Your task to perform on an android device: turn on improve location accuracy Image 0: 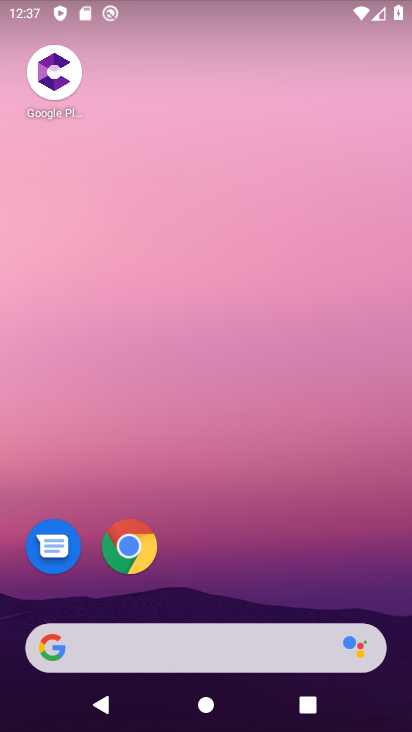
Step 0: drag from (266, 461) to (268, 56)
Your task to perform on an android device: turn on improve location accuracy Image 1: 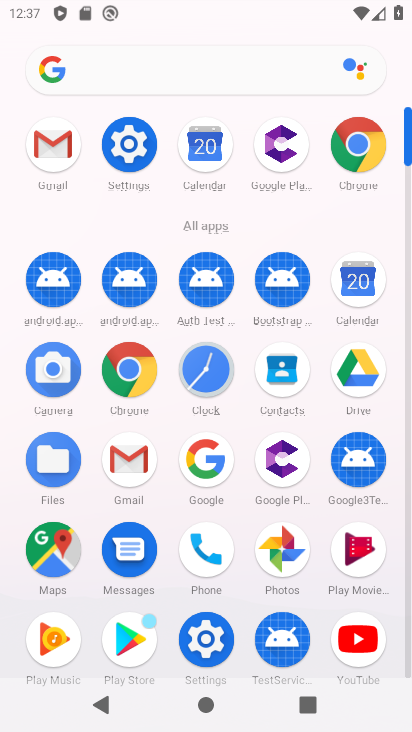
Step 1: click (139, 146)
Your task to perform on an android device: turn on improve location accuracy Image 2: 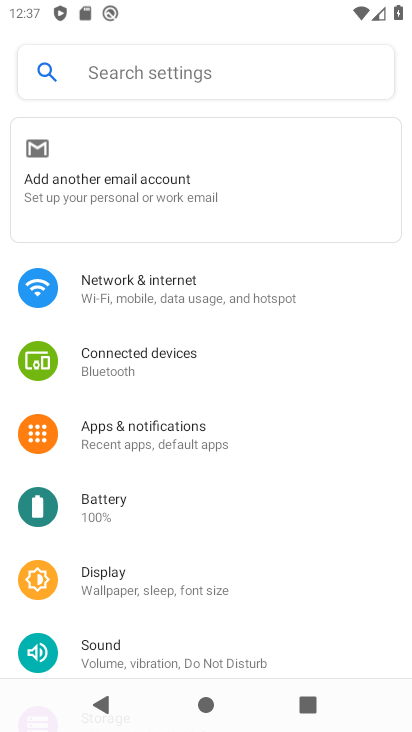
Step 2: drag from (163, 592) to (246, 150)
Your task to perform on an android device: turn on improve location accuracy Image 3: 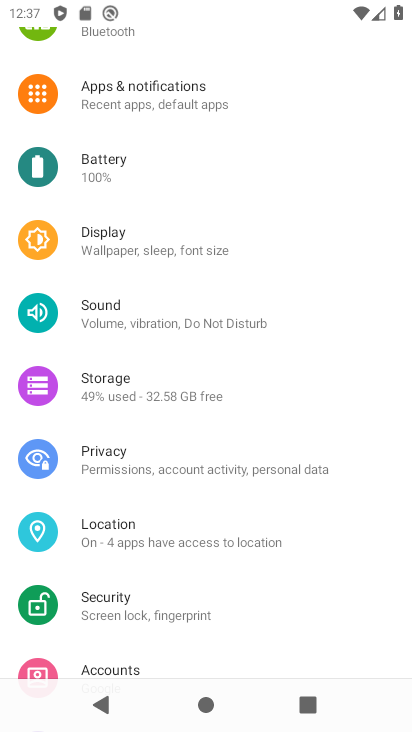
Step 3: click (111, 529)
Your task to perform on an android device: turn on improve location accuracy Image 4: 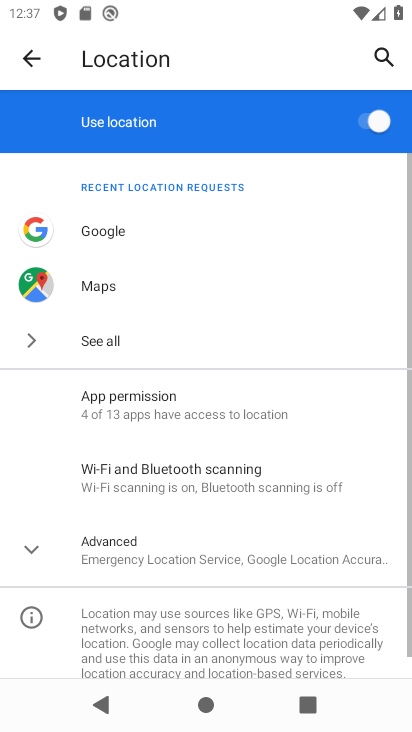
Step 4: click (127, 541)
Your task to perform on an android device: turn on improve location accuracy Image 5: 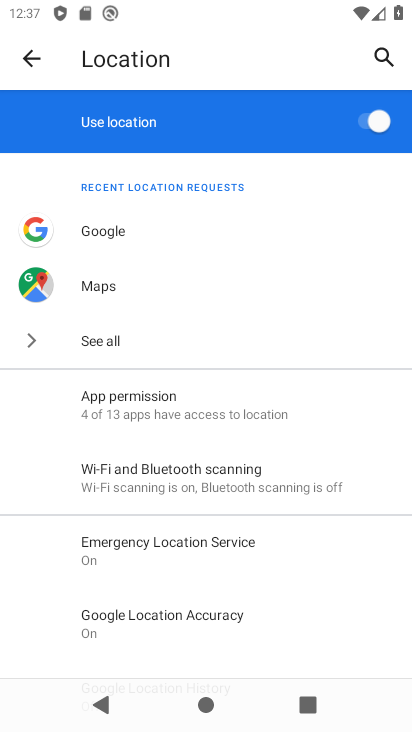
Step 5: click (163, 625)
Your task to perform on an android device: turn on improve location accuracy Image 6: 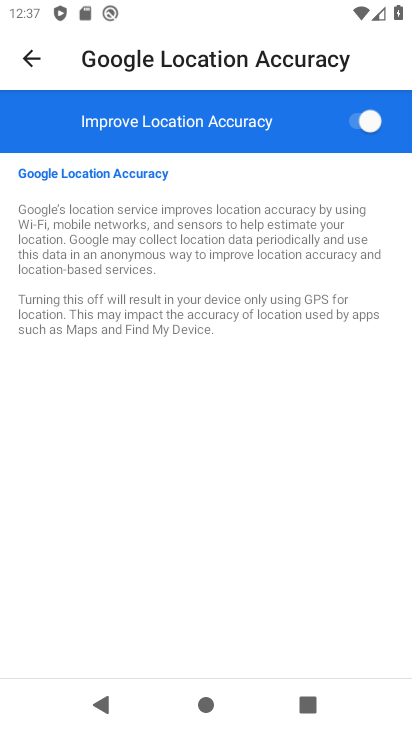
Step 6: task complete